Your task to perform on an android device: Go to Amazon Image 0: 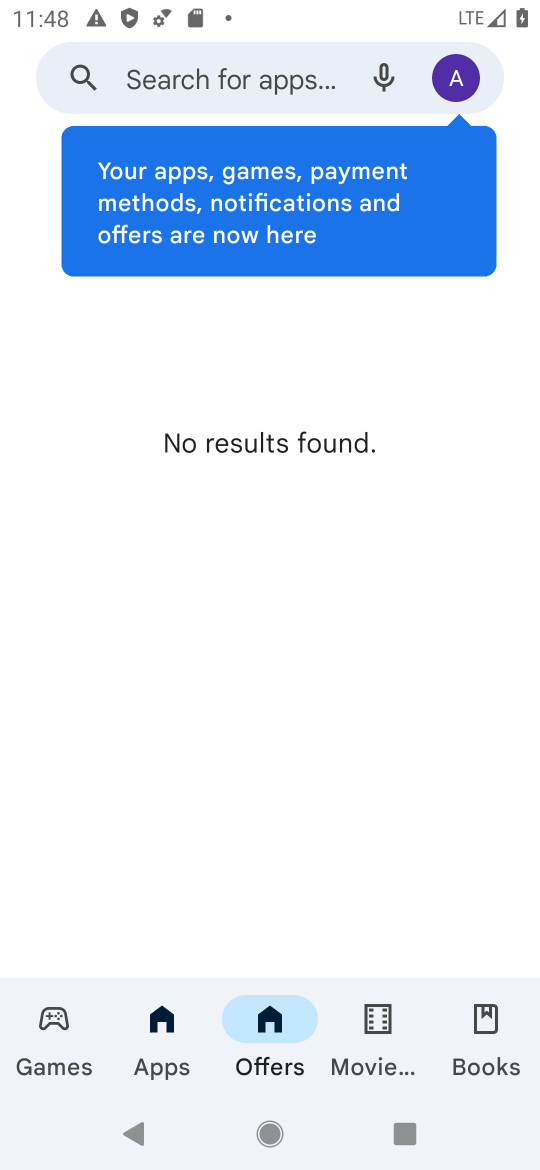
Step 0: press home button
Your task to perform on an android device: Go to Amazon Image 1: 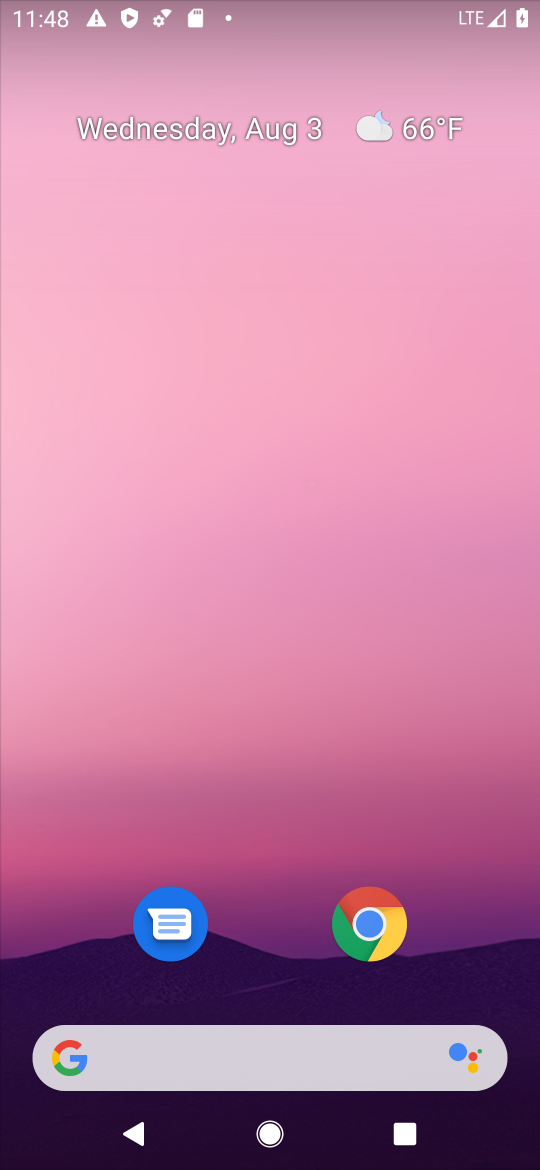
Step 1: drag from (191, 833) to (215, 6)
Your task to perform on an android device: Go to Amazon Image 2: 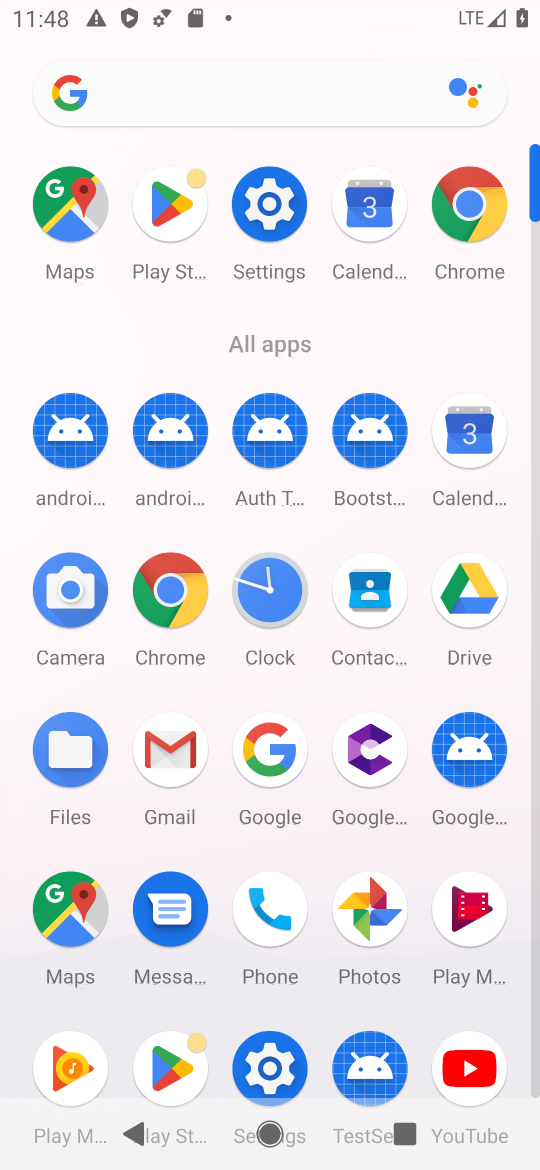
Step 2: click (150, 91)
Your task to perform on an android device: Go to Amazon Image 3: 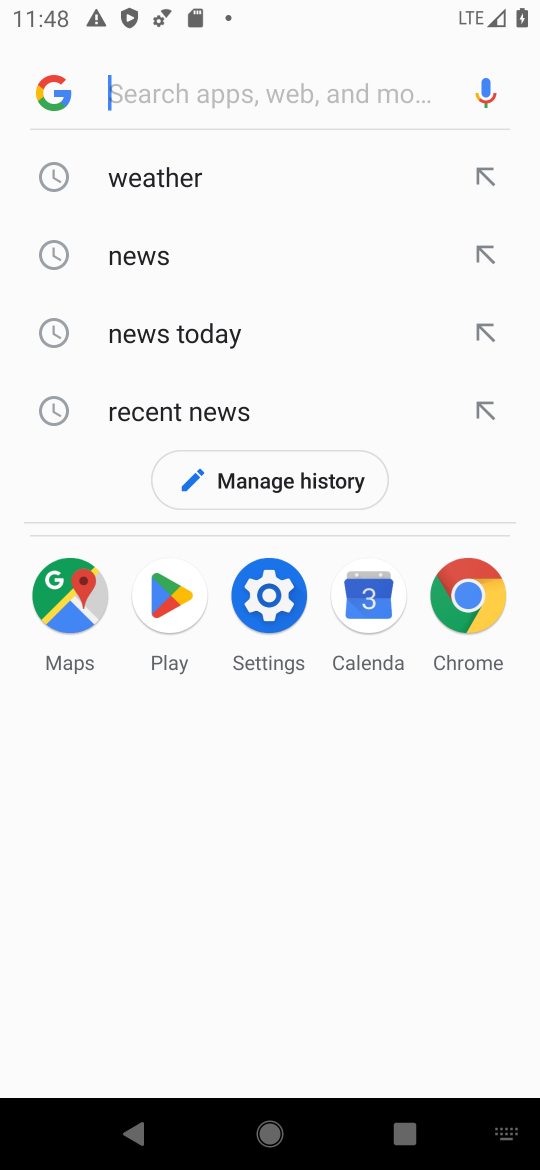
Step 3: type "Amazon"
Your task to perform on an android device: Go to Amazon Image 4: 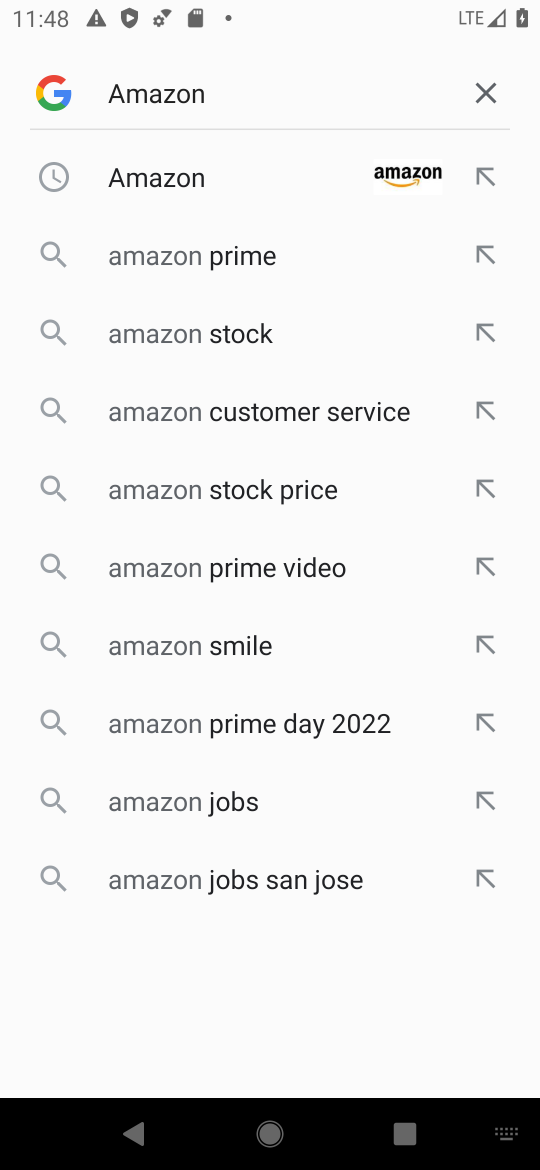
Step 4: click (167, 177)
Your task to perform on an android device: Go to Amazon Image 5: 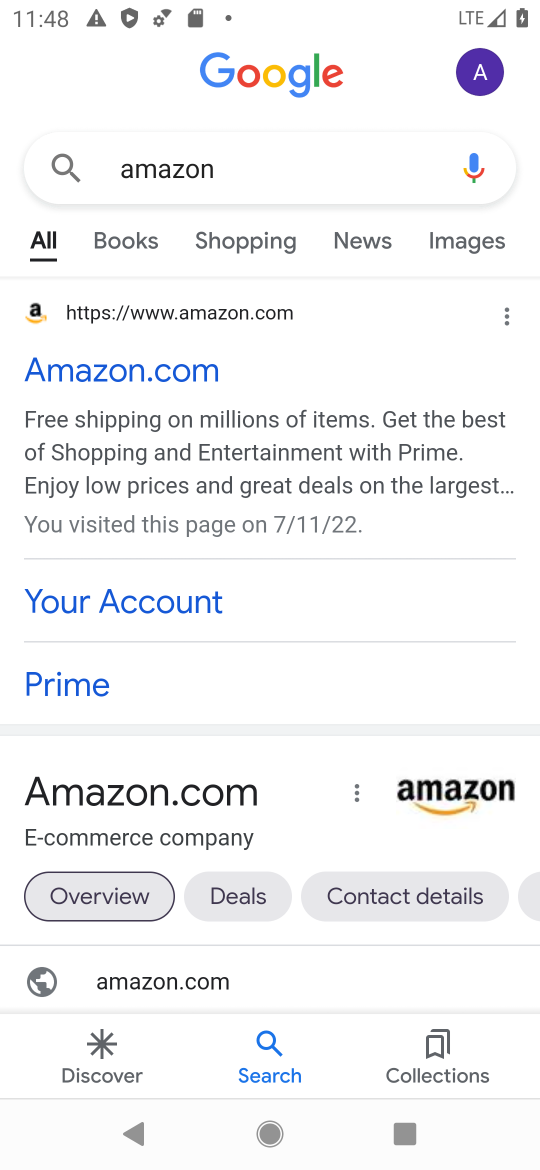
Step 5: task complete